Your task to perform on an android device: Open Maps and search for coffee Image 0: 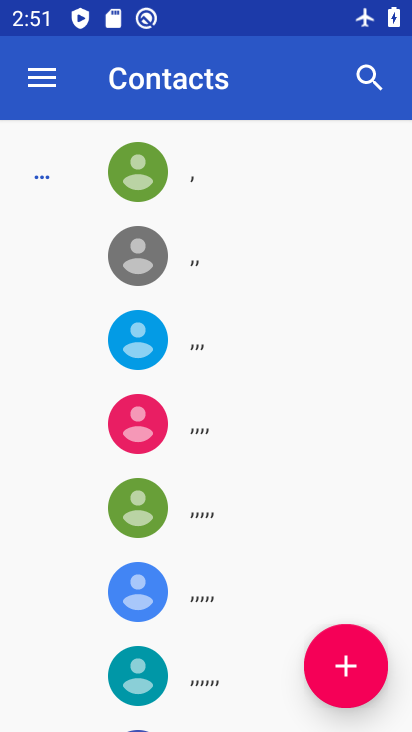
Step 0: press home button
Your task to perform on an android device: Open Maps and search for coffee Image 1: 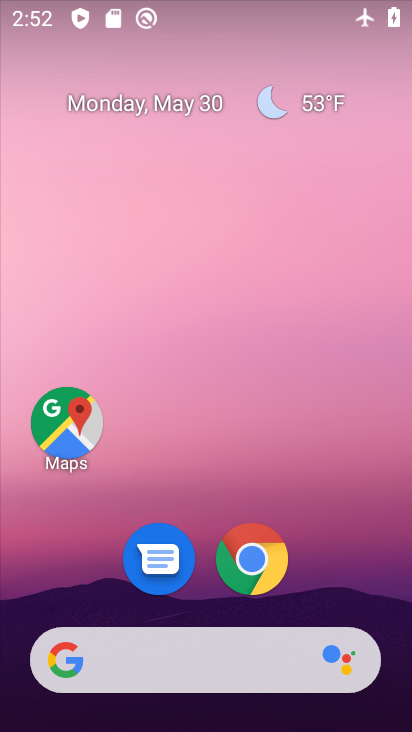
Step 1: click (71, 437)
Your task to perform on an android device: Open Maps and search for coffee Image 2: 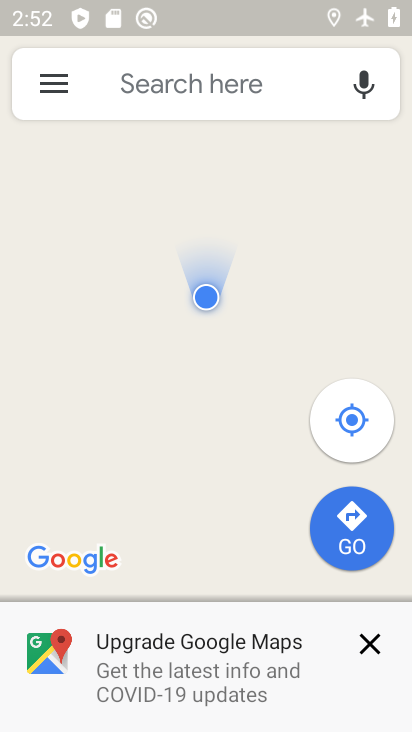
Step 2: task complete